Your task to perform on an android device: Show me popular videos on Youtube Image 0: 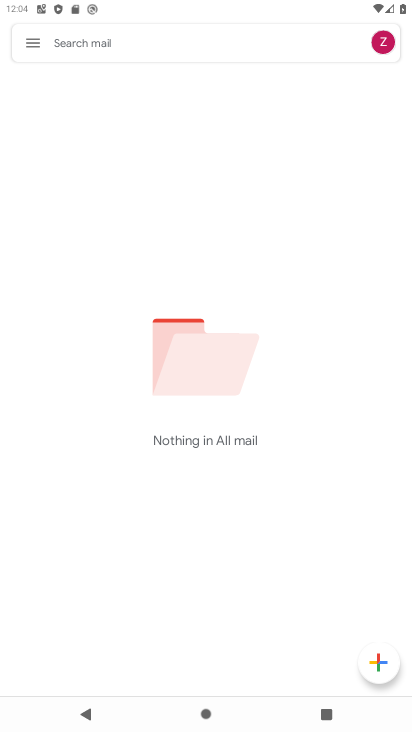
Step 0: press home button
Your task to perform on an android device: Show me popular videos on Youtube Image 1: 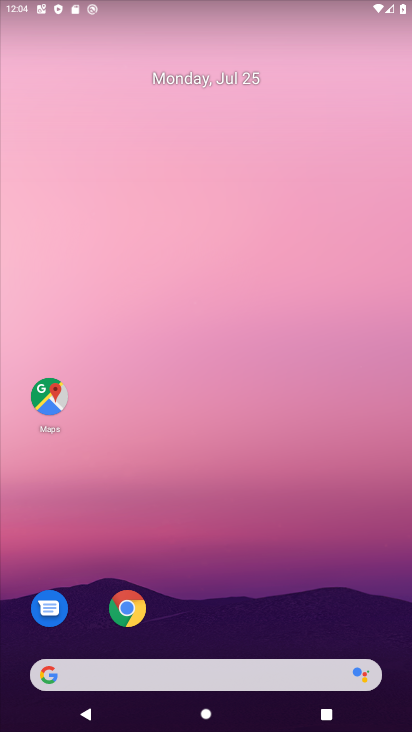
Step 1: drag from (260, 646) to (243, 38)
Your task to perform on an android device: Show me popular videos on Youtube Image 2: 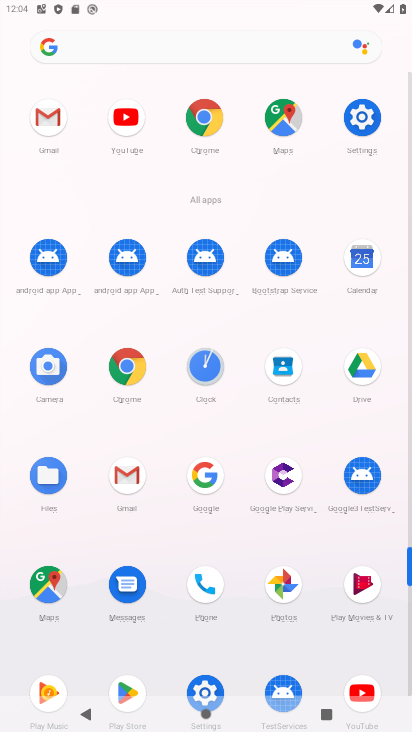
Step 2: click (131, 120)
Your task to perform on an android device: Show me popular videos on Youtube Image 3: 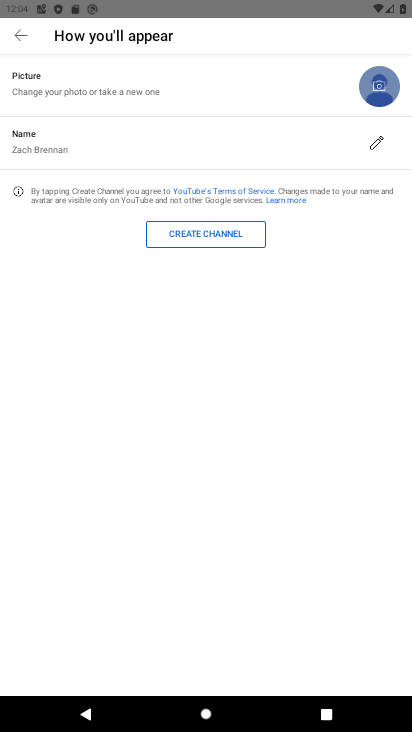
Step 3: click (18, 35)
Your task to perform on an android device: Show me popular videos on Youtube Image 4: 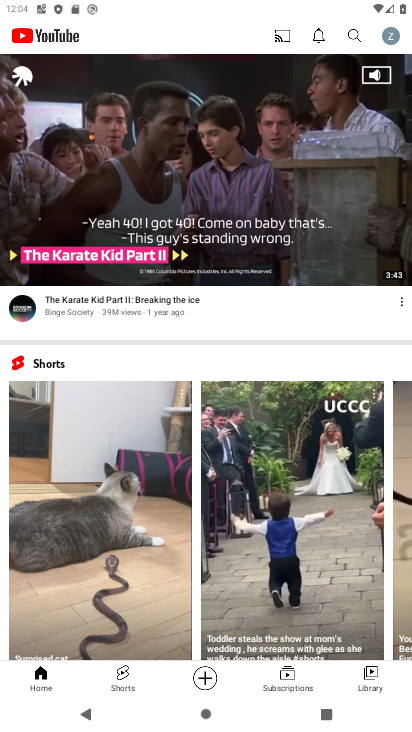
Step 4: task complete